Your task to perform on an android device: add a contact in the contacts app Image 0: 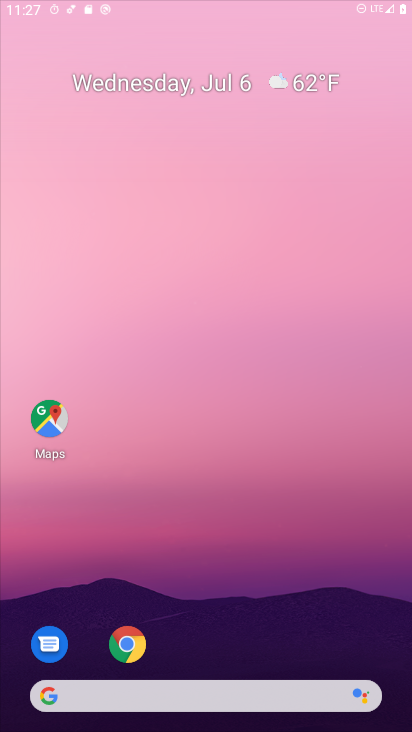
Step 0: press home button
Your task to perform on an android device: add a contact in the contacts app Image 1: 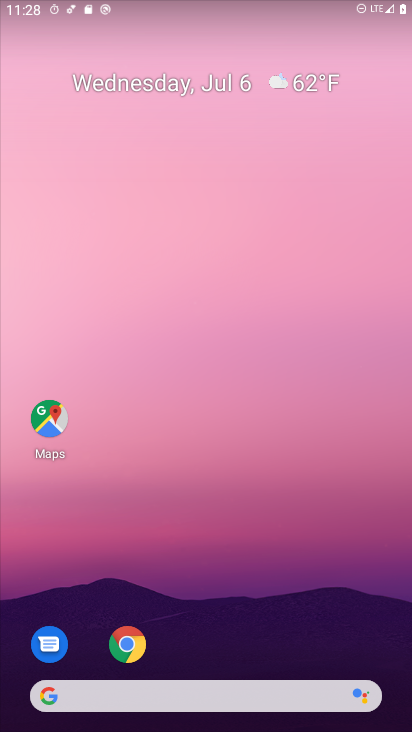
Step 1: click (410, 432)
Your task to perform on an android device: add a contact in the contacts app Image 2: 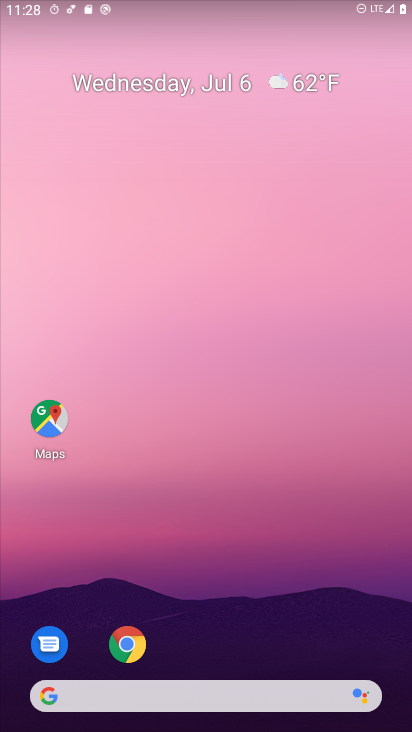
Step 2: drag from (257, 660) to (173, 160)
Your task to perform on an android device: add a contact in the contacts app Image 3: 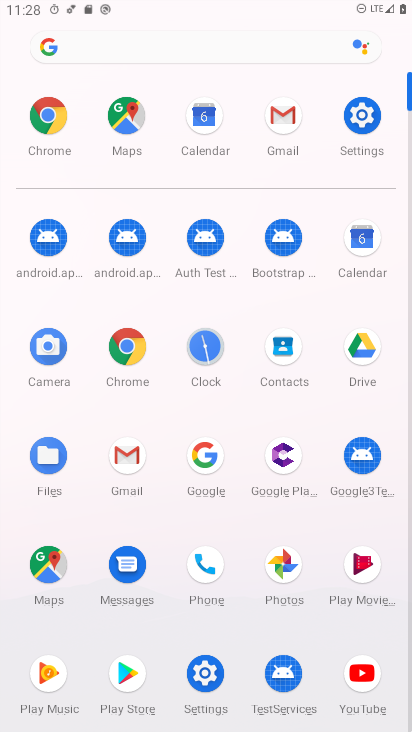
Step 3: click (274, 349)
Your task to perform on an android device: add a contact in the contacts app Image 4: 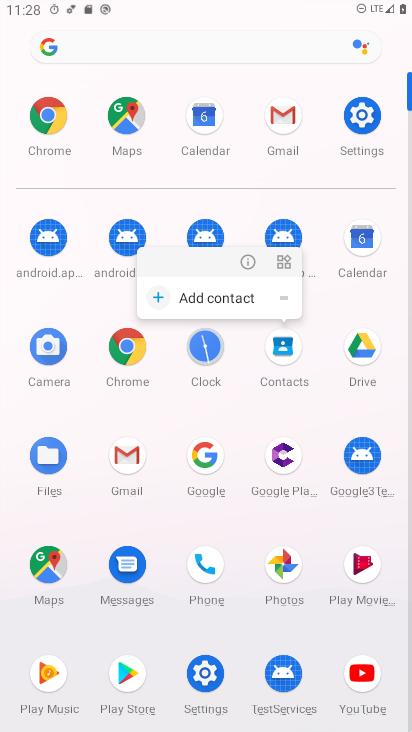
Step 4: click (280, 356)
Your task to perform on an android device: add a contact in the contacts app Image 5: 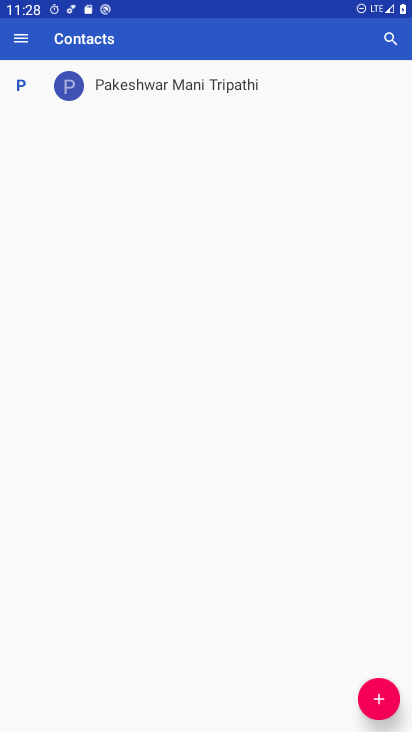
Step 5: click (376, 698)
Your task to perform on an android device: add a contact in the contacts app Image 6: 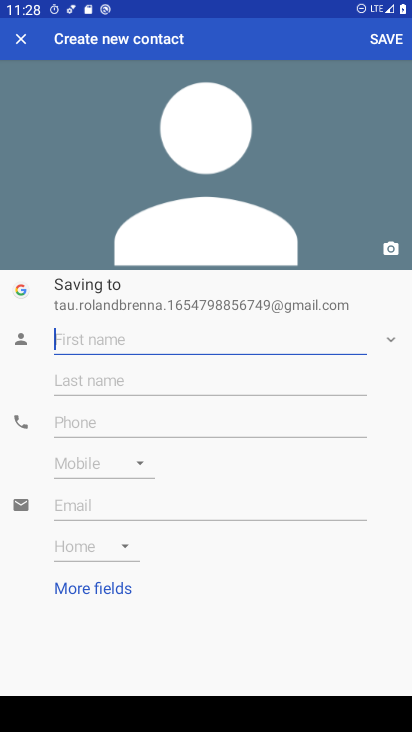
Step 6: click (157, 338)
Your task to perform on an android device: add a contact in the contacts app Image 7: 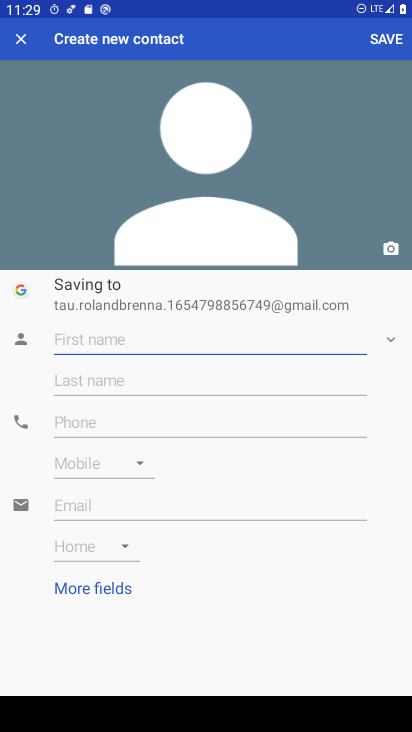
Step 7: type "bbnbnvnvbvbvb"
Your task to perform on an android device: add a contact in the contacts app Image 8: 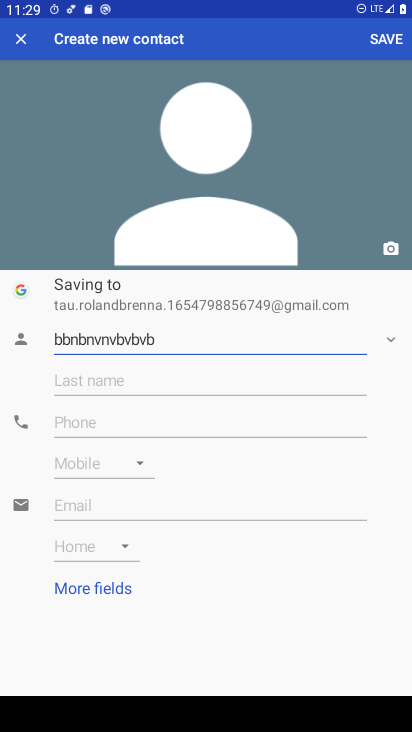
Step 8: click (113, 427)
Your task to perform on an android device: add a contact in the contacts app Image 9: 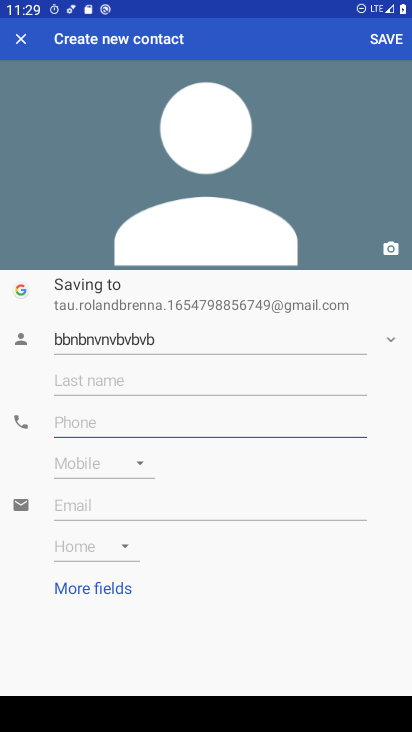
Step 9: type "577676"
Your task to perform on an android device: add a contact in the contacts app Image 10: 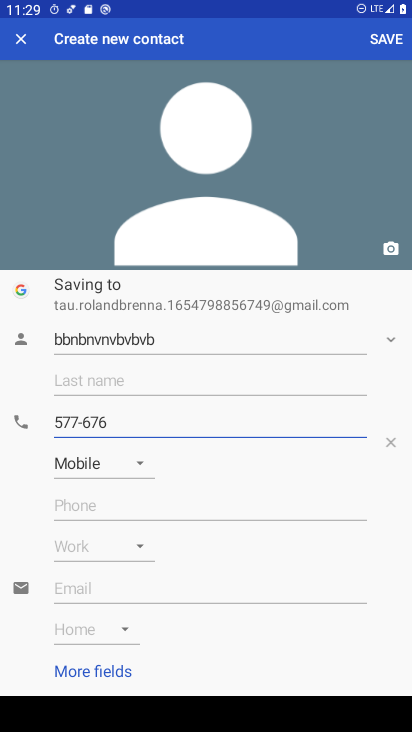
Step 10: click (382, 41)
Your task to perform on an android device: add a contact in the contacts app Image 11: 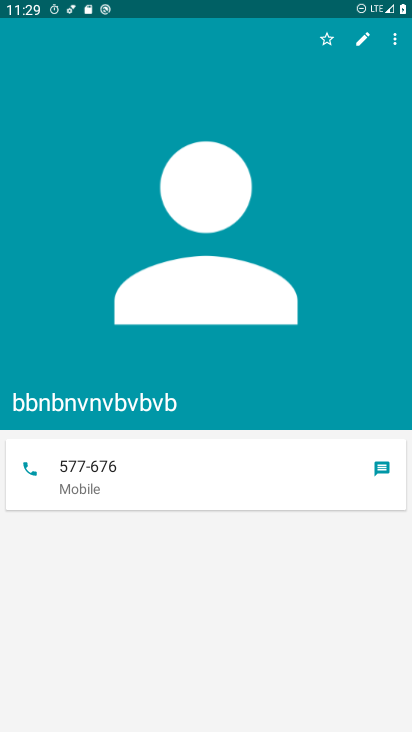
Step 11: task complete